Your task to perform on an android device: Open calendar and show me the fourth week of next month Image 0: 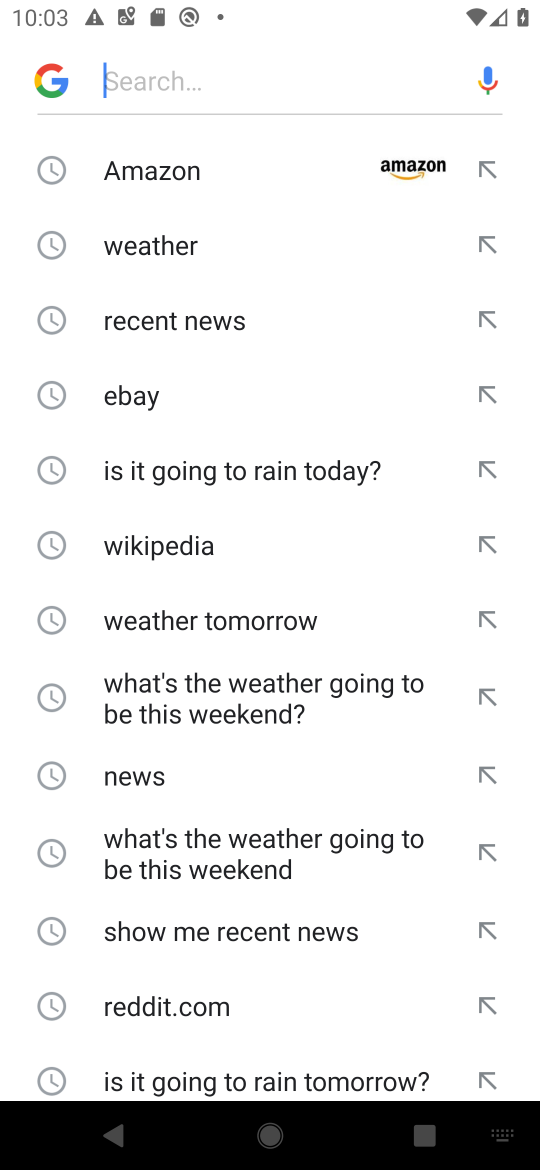
Step 0: press home button
Your task to perform on an android device: Open calendar and show me the fourth week of next month Image 1: 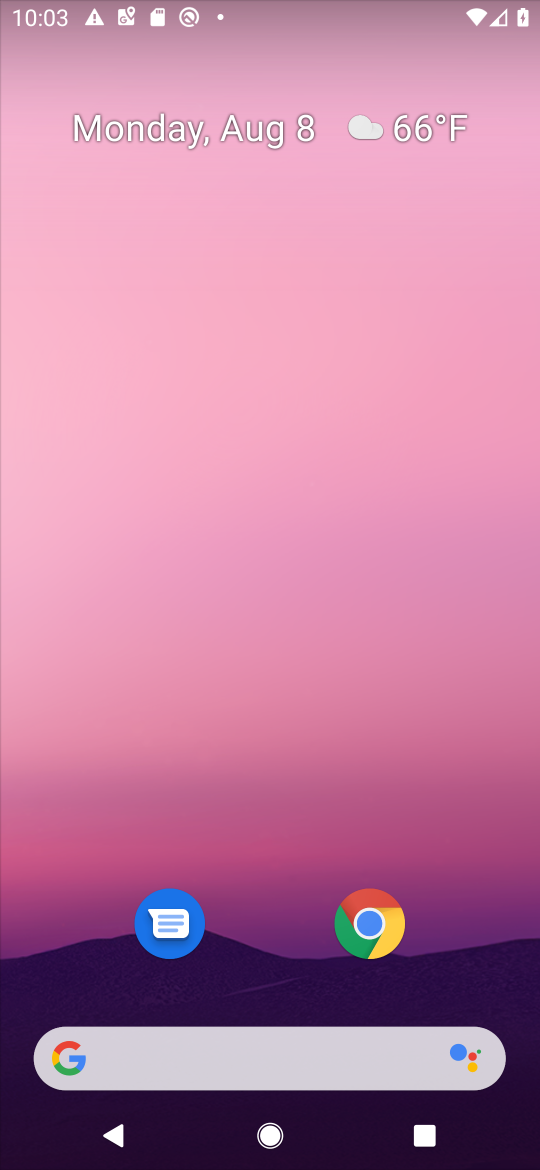
Step 1: drag from (77, 1126) to (322, 339)
Your task to perform on an android device: Open calendar and show me the fourth week of next month Image 2: 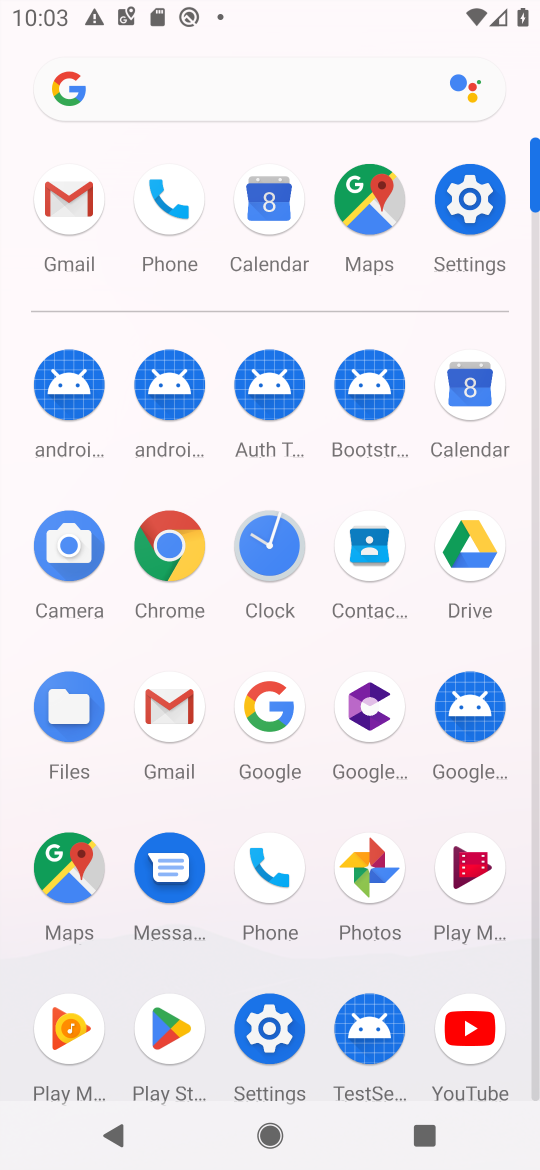
Step 2: click (465, 410)
Your task to perform on an android device: Open calendar and show me the fourth week of next month Image 3: 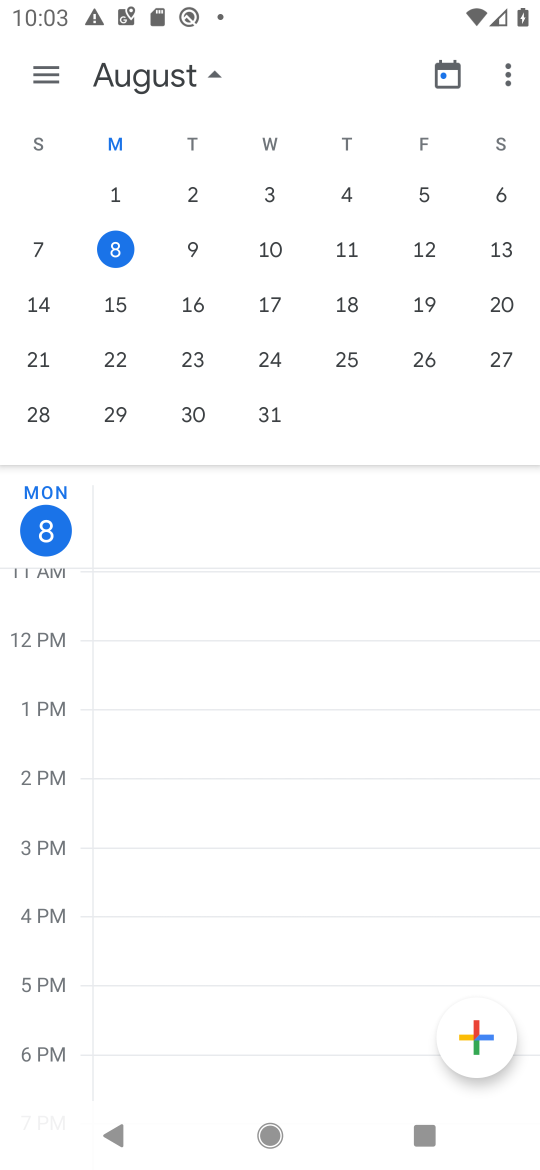
Step 3: drag from (471, 216) to (27, 205)
Your task to perform on an android device: Open calendar and show me the fourth week of next month Image 4: 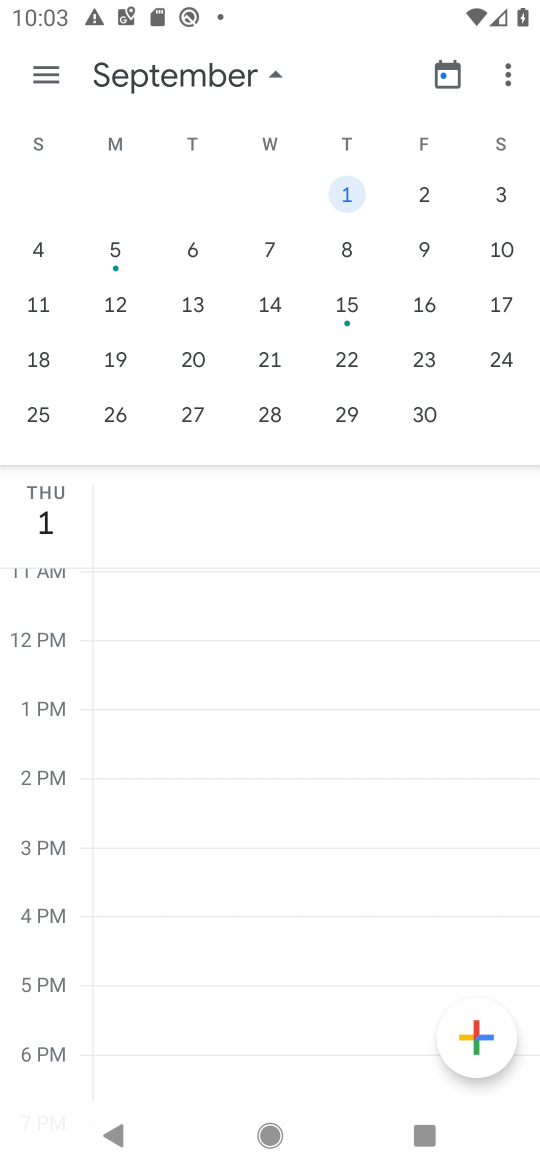
Step 4: click (108, 364)
Your task to perform on an android device: Open calendar and show me the fourth week of next month Image 5: 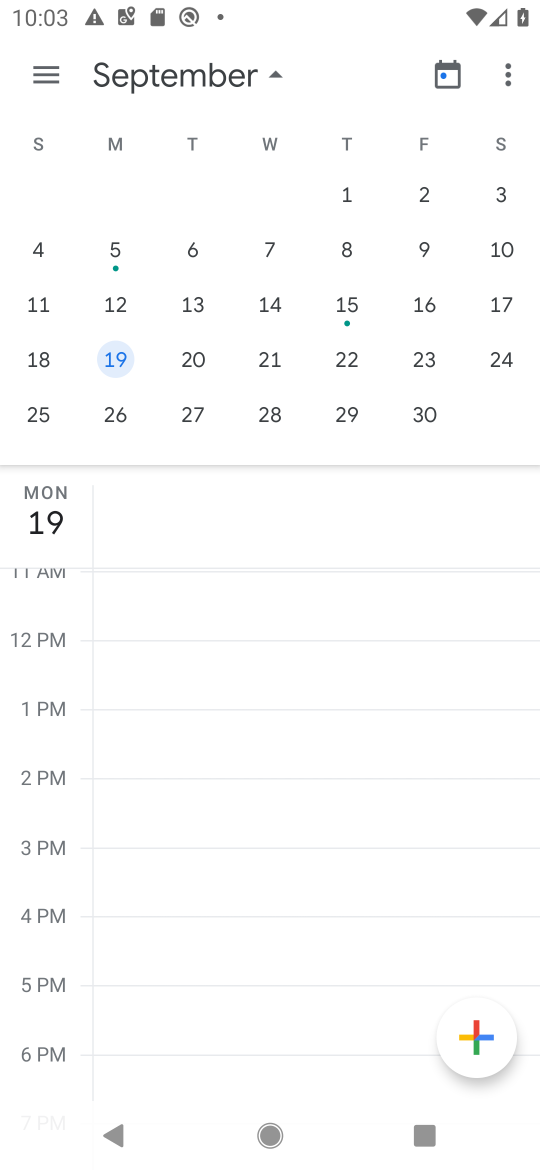
Step 5: task complete